Your task to perform on an android device: snooze an email in the gmail app Image 0: 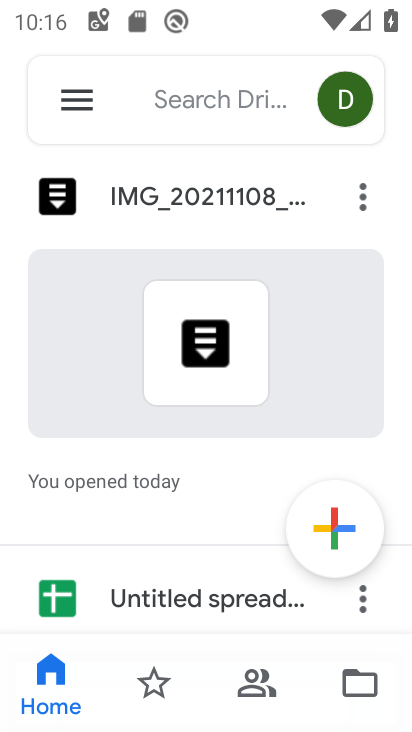
Step 0: press home button
Your task to perform on an android device: snooze an email in the gmail app Image 1: 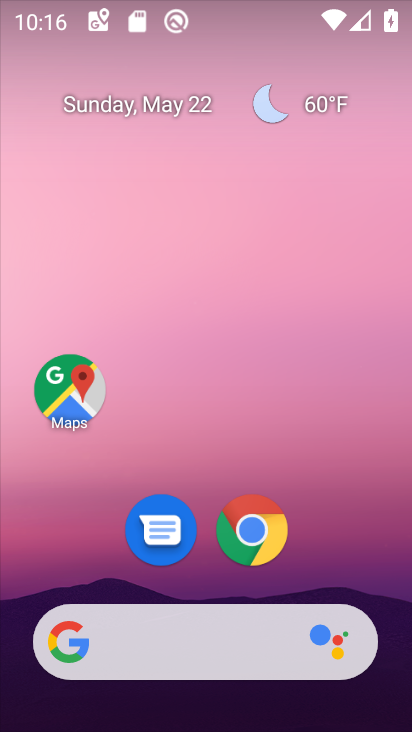
Step 1: drag from (396, 541) to (393, 157)
Your task to perform on an android device: snooze an email in the gmail app Image 2: 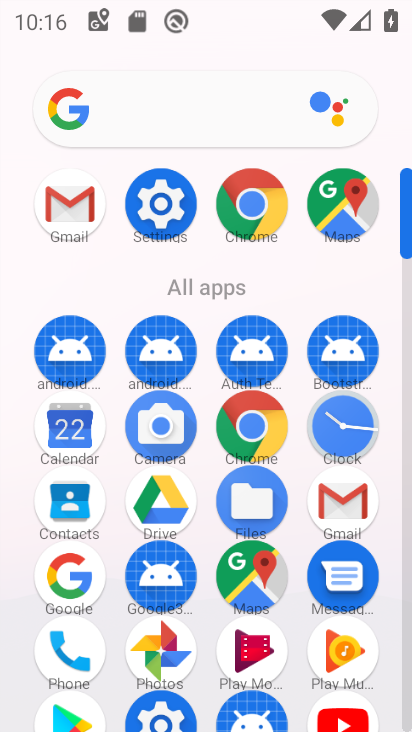
Step 2: click (343, 506)
Your task to perform on an android device: snooze an email in the gmail app Image 3: 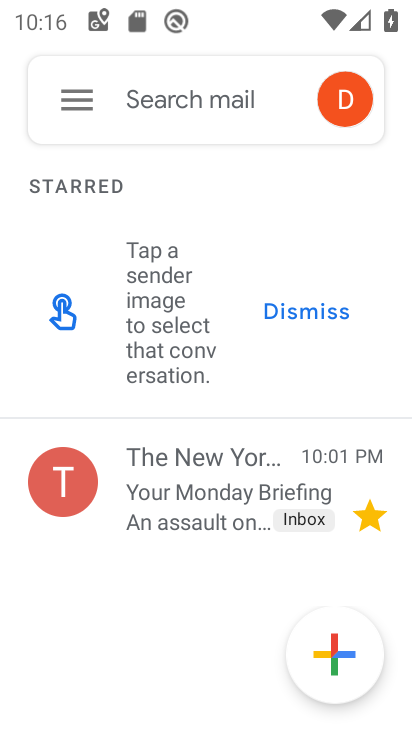
Step 3: click (68, 101)
Your task to perform on an android device: snooze an email in the gmail app Image 4: 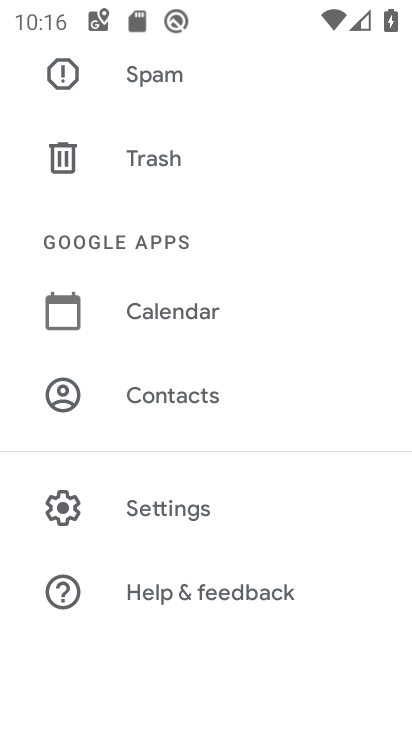
Step 4: drag from (311, 170) to (391, 655)
Your task to perform on an android device: snooze an email in the gmail app Image 5: 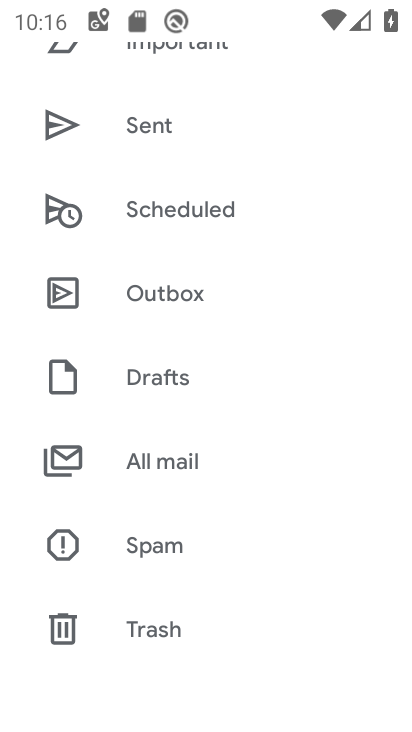
Step 5: drag from (288, 119) to (382, 708)
Your task to perform on an android device: snooze an email in the gmail app Image 6: 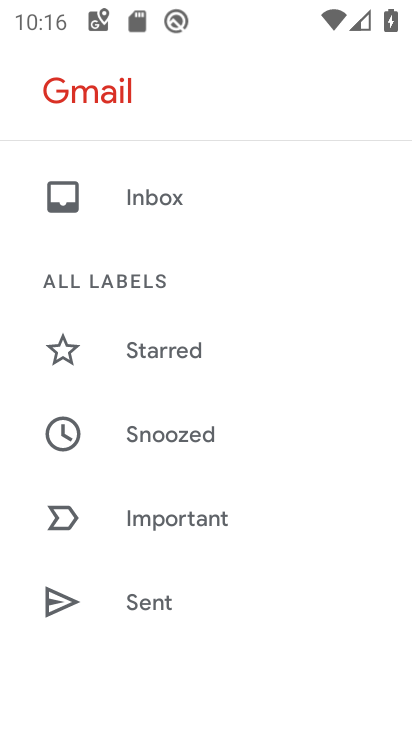
Step 6: click (142, 196)
Your task to perform on an android device: snooze an email in the gmail app Image 7: 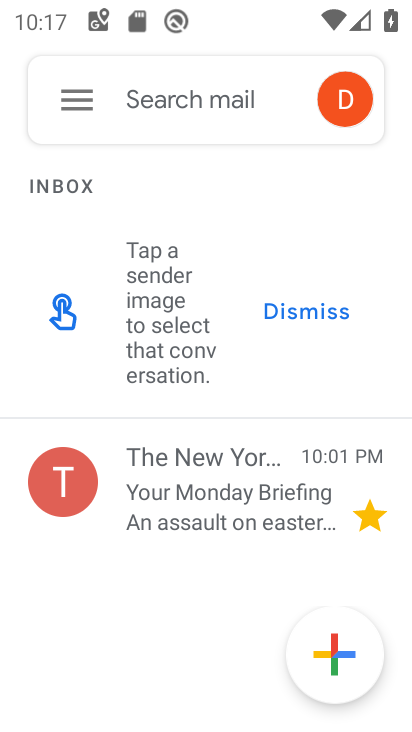
Step 7: click (75, 93)
Your task to perform on an android device: snooze an email in the gmail app Image 8: 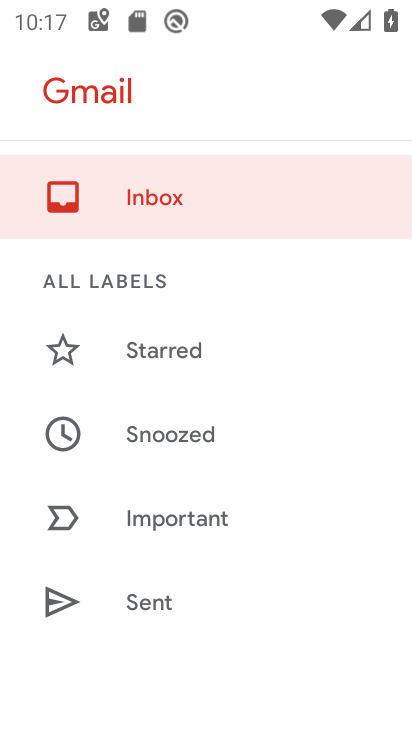
Step 8: click (148, 177)
Your task to perform on an android device: snooze an email in the gmail app Image 9: 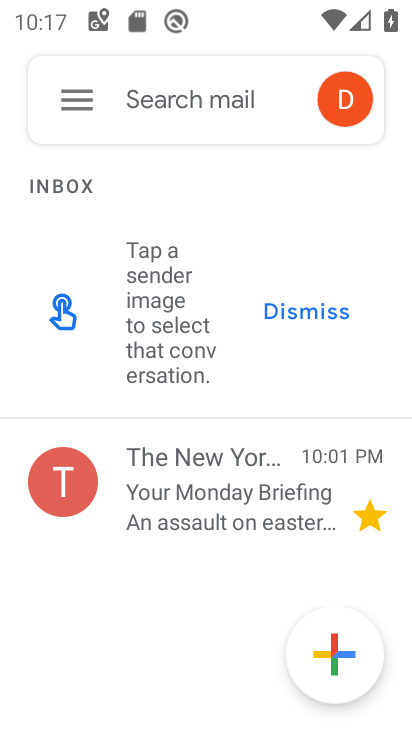
Step 9: task complete